Your task to perform on an android device: Do I have any events today? Image 0: 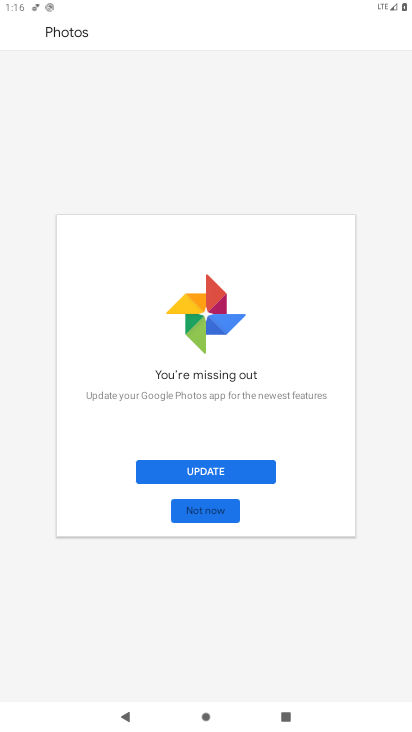
Step 0: press home button
Your task to perform on an android device: Do I have any events today? Image 1: 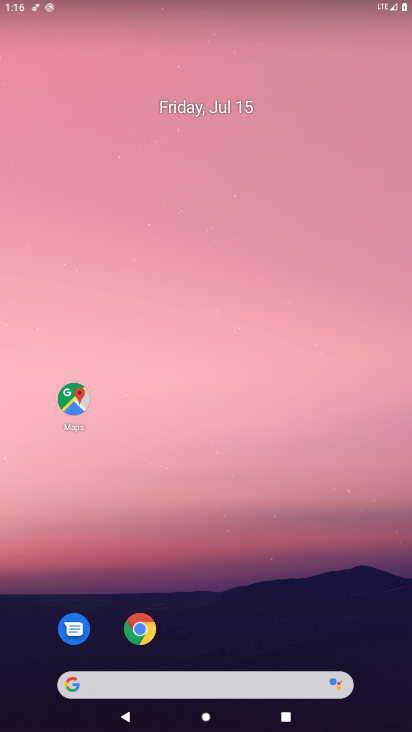
Step 1: drag from (357, 576) to (256, 12)
Your task to perform on an android device: Do I have any events today? Image 2: 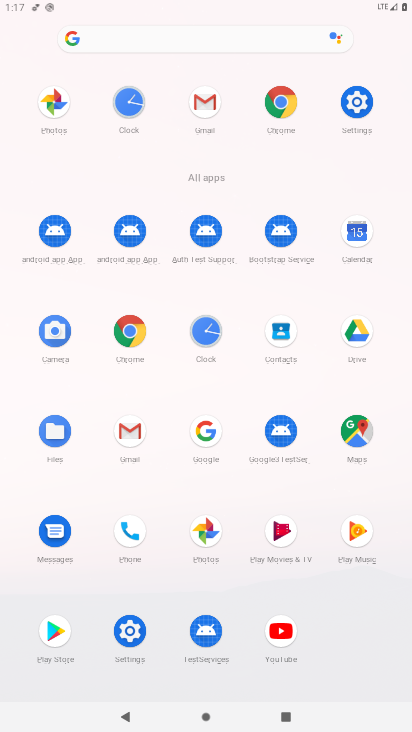
Step 2: click (363, 257)
Your task to perform on an android device: Do I have any events today? Image 3: 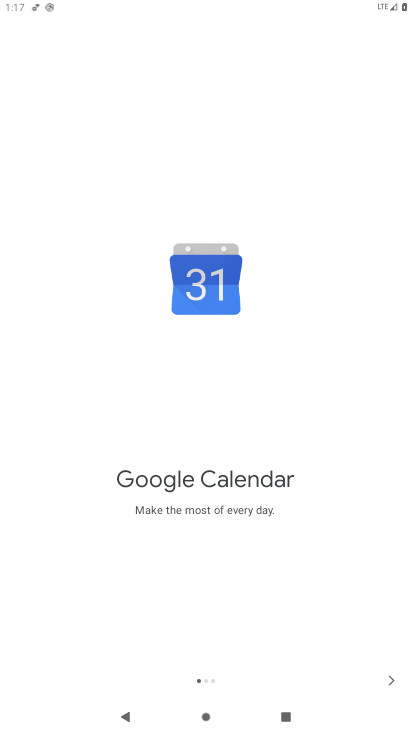
Step 3: click (387, 686)
Your task to perform on an android device: Do I have any events today? Image 4: 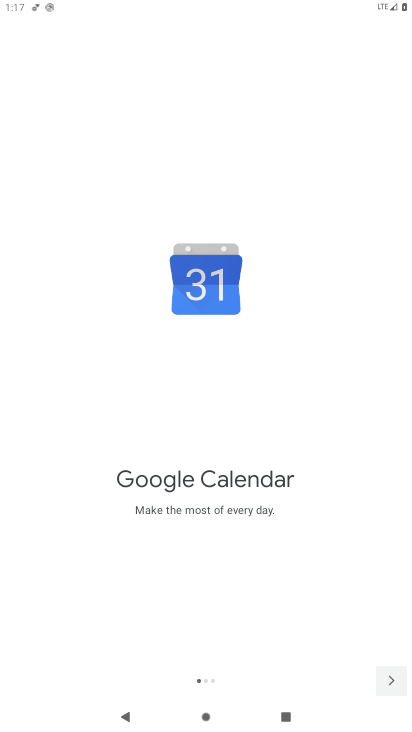
Step 4: click (387, 686)
Your task to perform on an android device: Do I have any events today? Image 5: 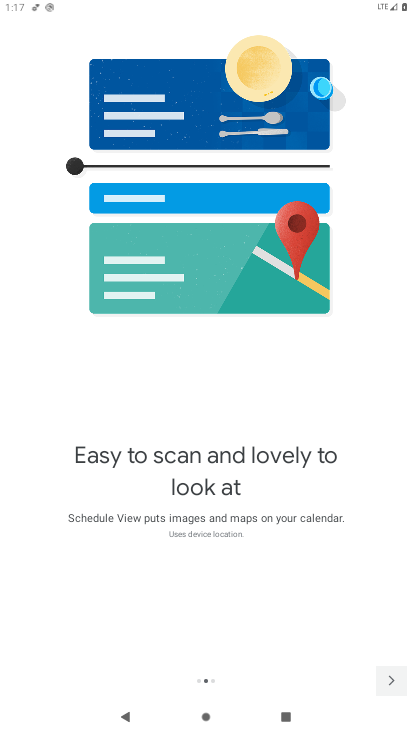
Step 5: click (387, 686)
Your task to perform on an android device: Do I have any events today? Image 6: 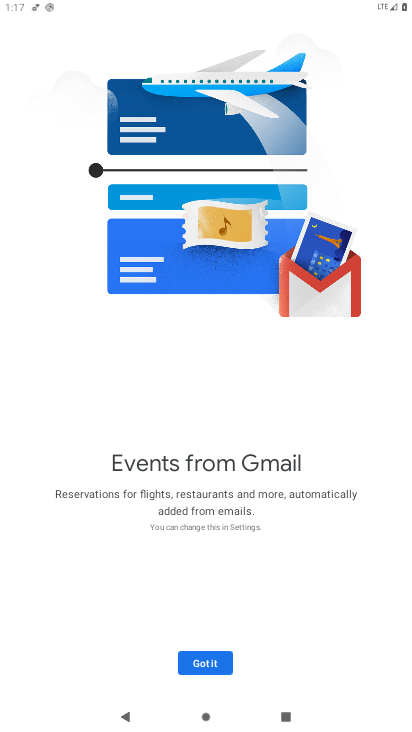
Step 6: click (164, 655)
Your task to perform on an android device: Do I have any events today? Image 7: 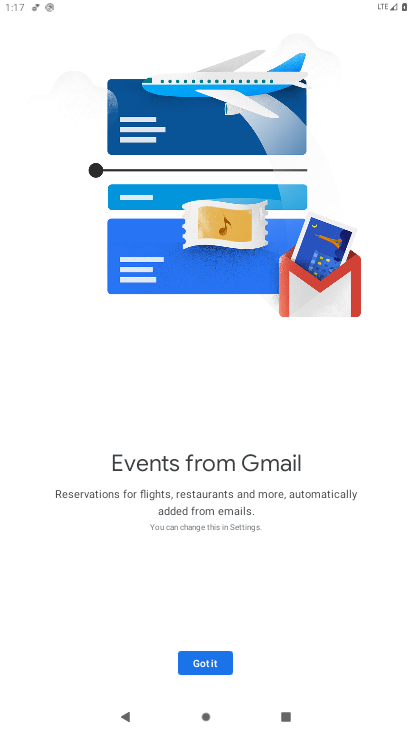
Step 7: click (185, 660)
Your task to perform on an android device: Do I have any events today? Image 8: 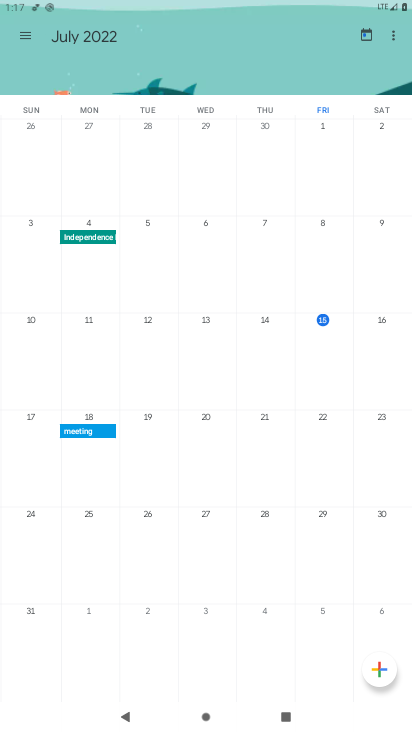
Step 8: click (318, 346)
Your task to perform on an android device: Do I have any events today? Image 9: 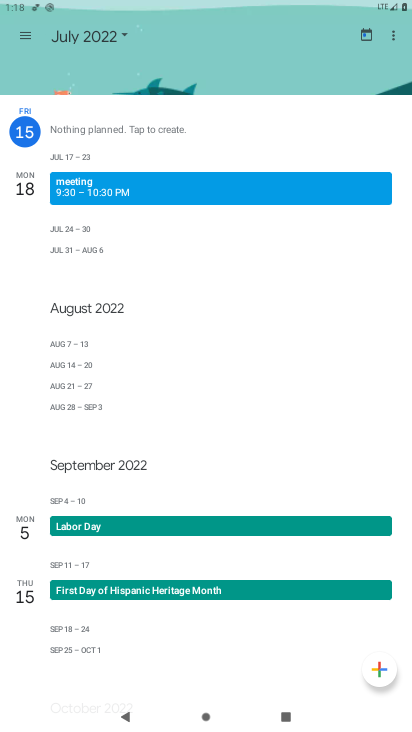
Step 9: task complete